Your task to perform on an android device: Open accessibility settings Image 0: 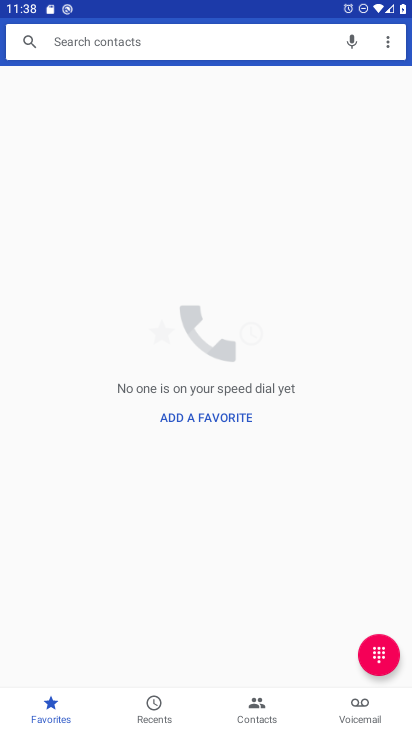
Step 0: press home button
Your task to perform on an android device: Open accessibility settings Image 1: 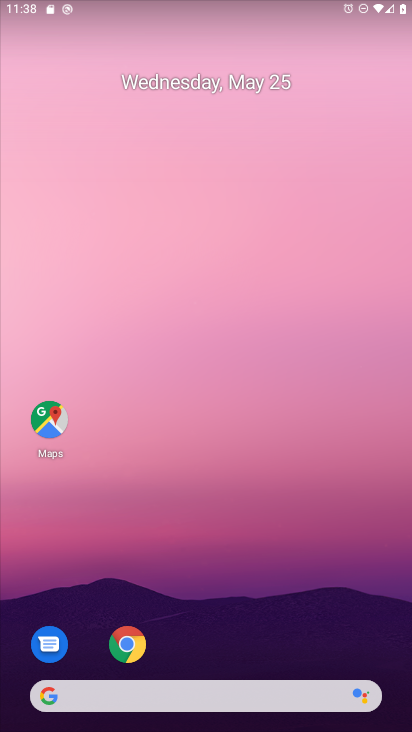
Step 1: drag from (190, 668) to (215, 125)
Your task to perform on an android device: Open accessibility settings Image 2: 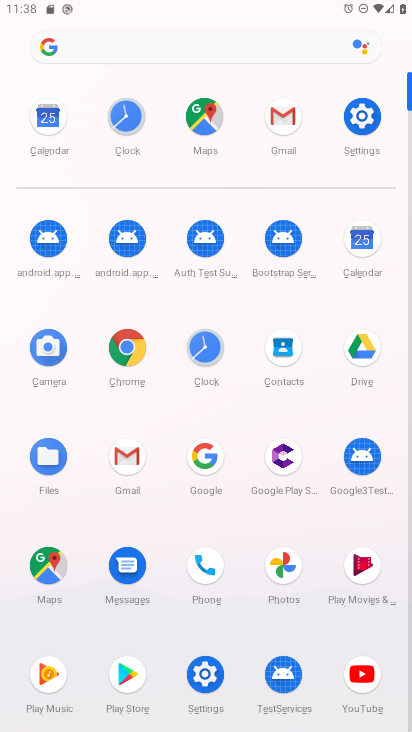
Step 2: click (361, 110)
Your task to perform on an android device: Open accessibility settings Image 3: 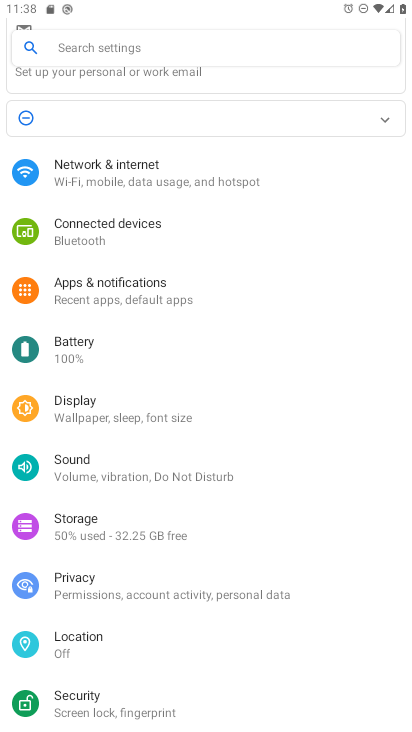
Step 3: drag from (136, 699) to (149, 229)
Your task to perform on an android device: Open accessibility settings Image 4: 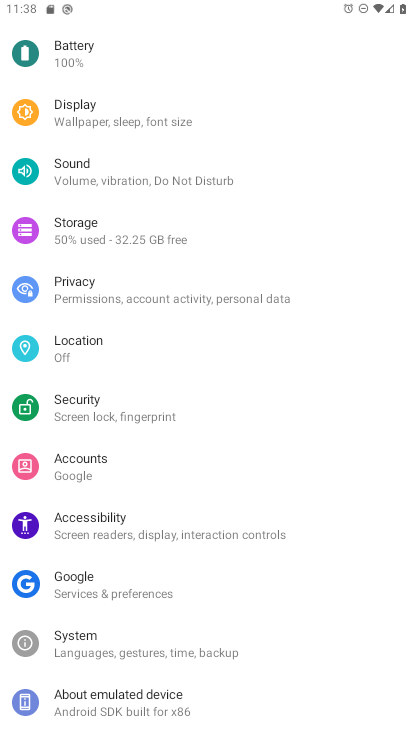
Step 4: click (143, 514)
Your task to perform on an android device: Open accessibility settings Image 5: 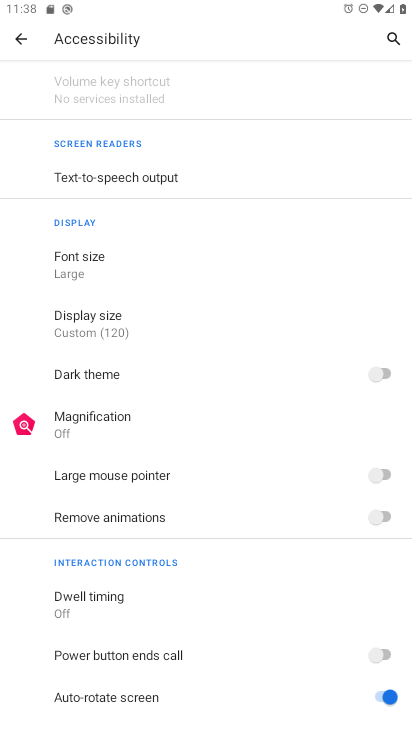
Step 5: drag from (164, 628) to (169, 126)
Your task to perform on an android device: Open accessibility settings Image 6: 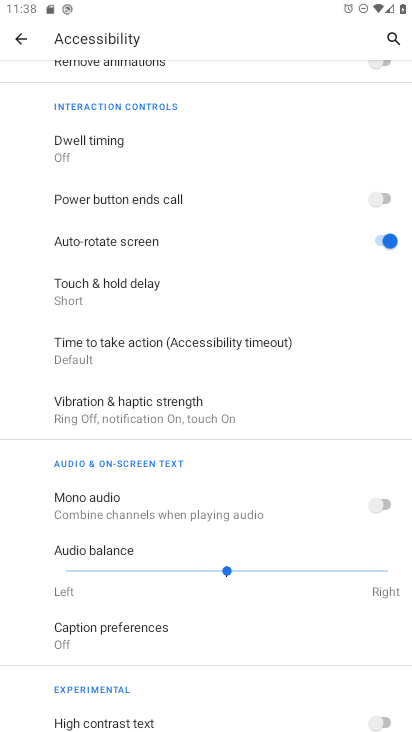
Step 6: click (166, 265)
Your task to perform on an android device: Open accessibility settings Image 7: 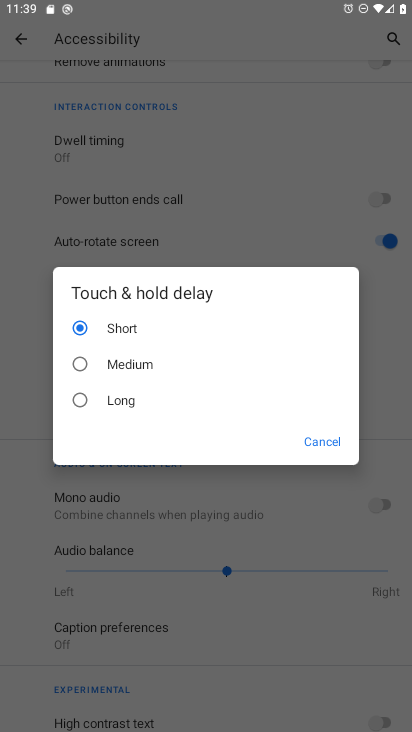
Step 7: click (150, 649)
Your task to perform on an android device: Open accessibility settings Image 8: 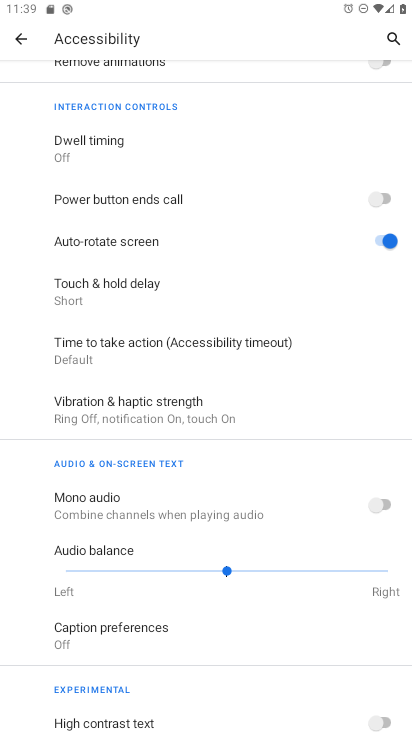
Step 8: task complete